Your task to perform on an android device: clear history in the chrome app Image 0: 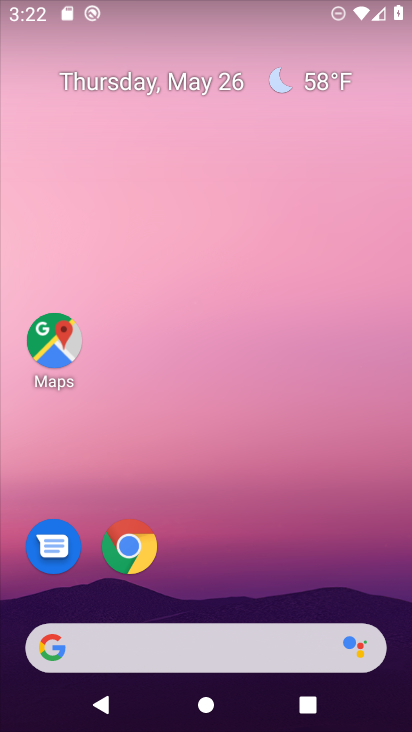
Step 0: press home button
Your task to perform on an android device: clear history in the chrome app Image 1: 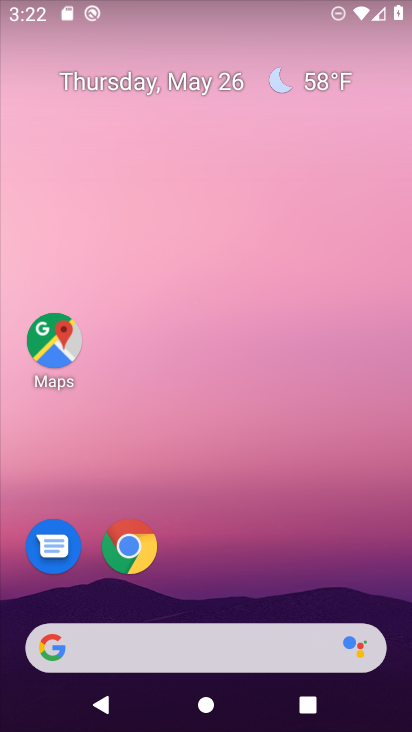
Step 1: click (130, 540)
Your task to perform on an android device: clear history in the chrome app Image 2: 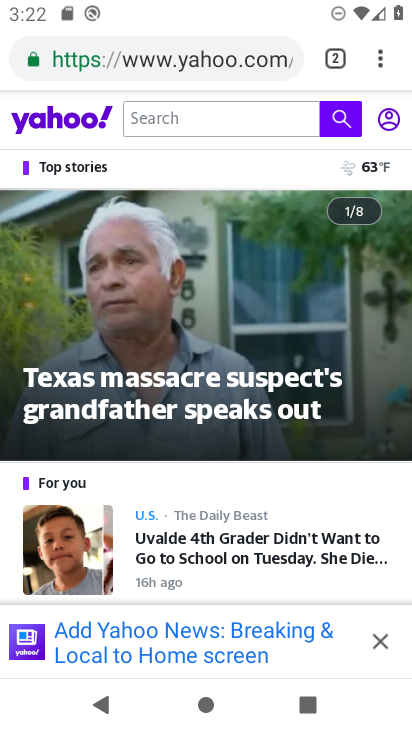
Step 2: click (377, 639)
Your task to perform on an android device: clear history in the chrome app Image 3: 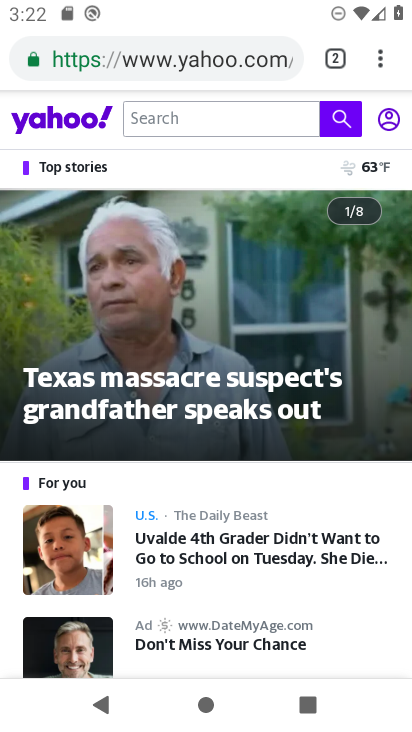
Step 3: click (385, 52)
Your task to perform on an android device: clear history in the chrome app Image 4: 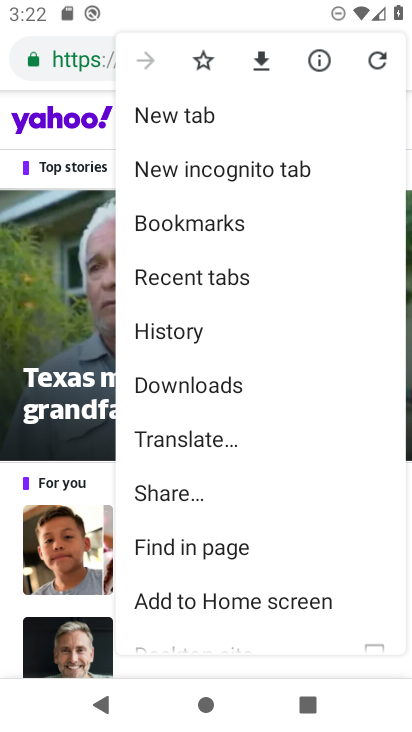
Step 4: click (229, 330)
Your task to perform on an android device: clear history in the chrome app Image 5: 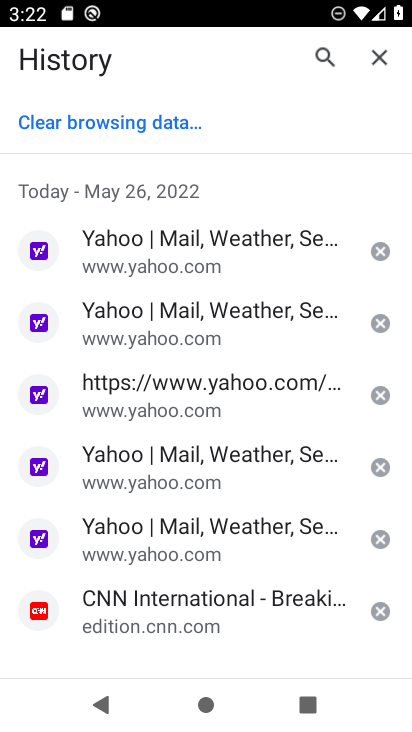
Step 5: click (106, 122)
Your task to perform on an android device: clear history in the chrome app Image 6: 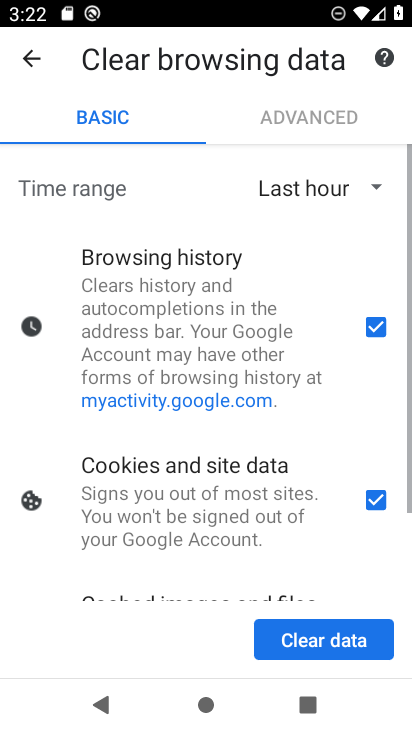
Step 6: drag from (284, 554) to (316, 160)
Your task to perform on an android device: clear history in the chrome app Image 7: 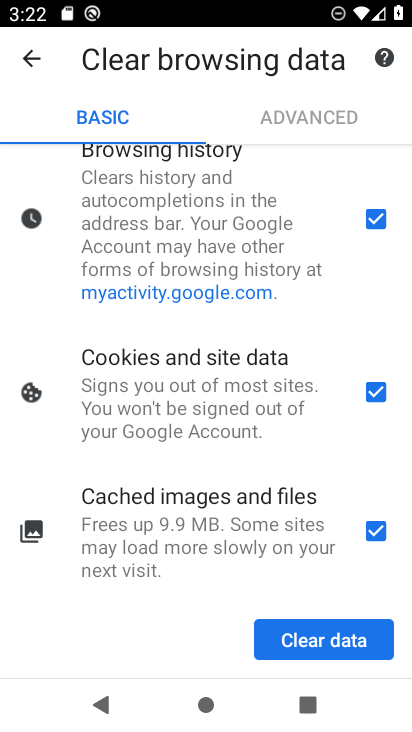
Step 7: click (338, 641)
Your task to perform on an android device: clear history in the chrome app Image 8: 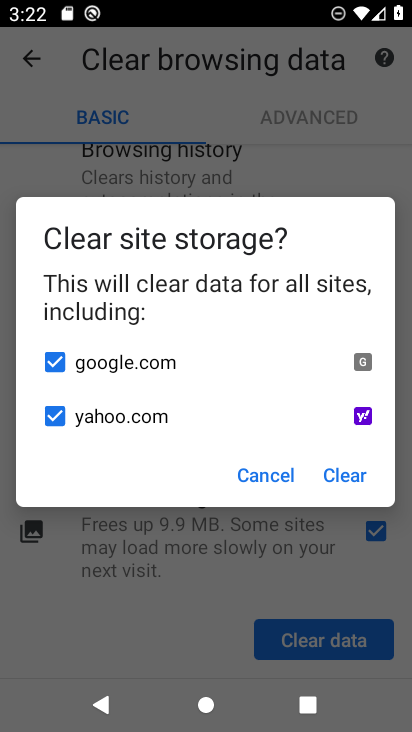
Step 8: click (345, 476)
Your task to perform on an android device: clear history in the chrome app Image 9: 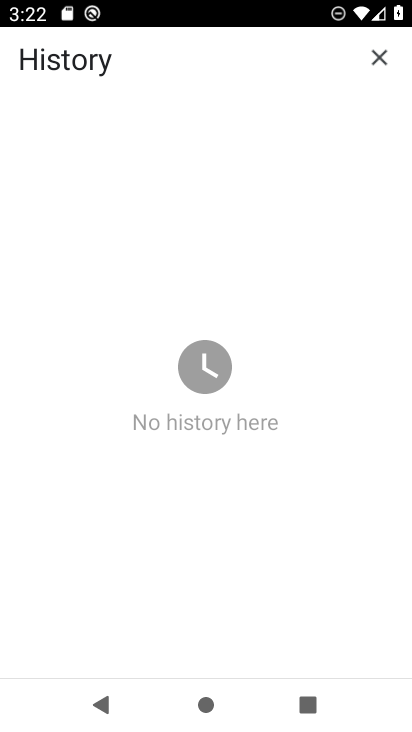
Step 9: task complete